Your task to perform on an android device: Open Yahoo.com Image 0: 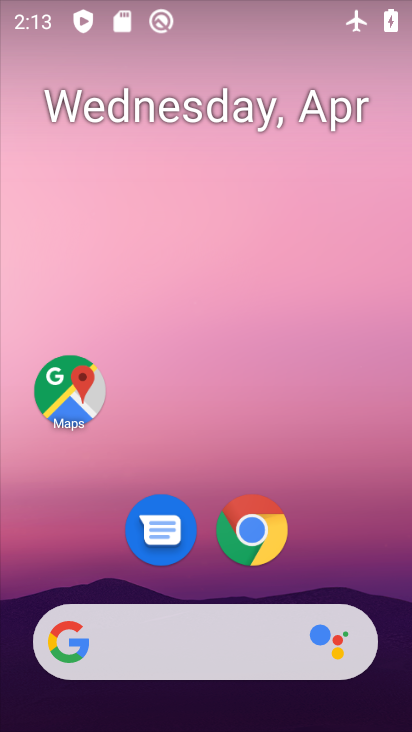
Step 0: click (248, 520)
Your task to perform on an android device: Open Yahoo.com Image 1: 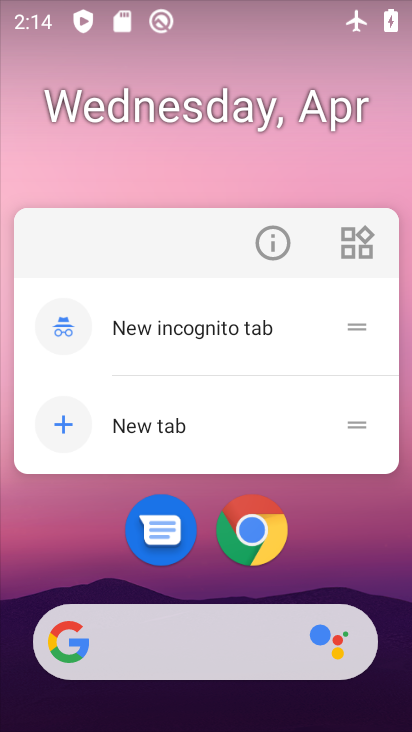
Step 1: drag from (338, 516) to (286, 1)
Your task to perform on an android device: Open Yahoo.com Image 2: 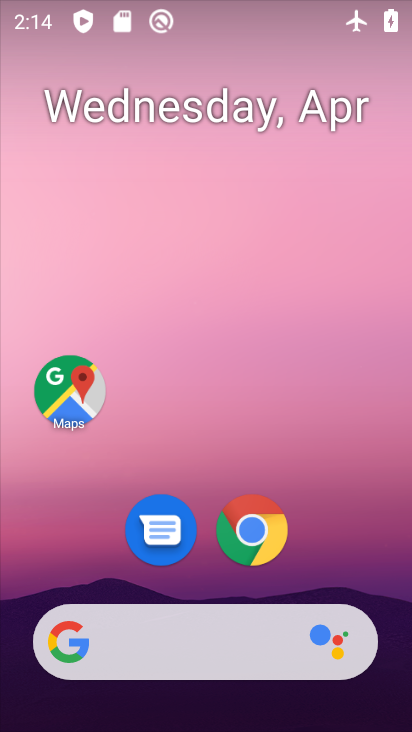
Step 2: drag from (319, 427) to (326, 37)
Your task to perform on an android device: Open Yahoo.com Image 3: 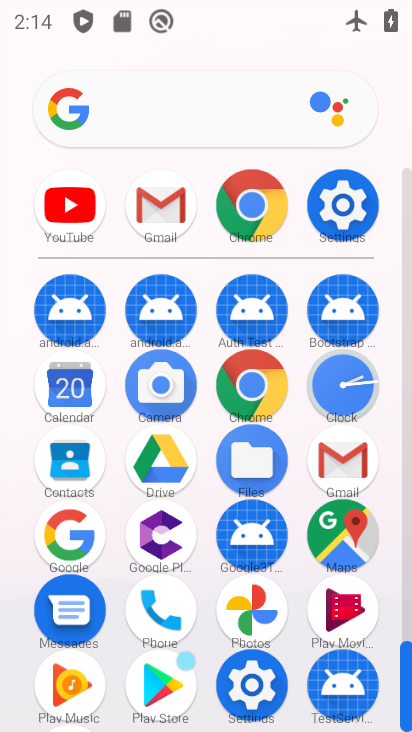
Step 3: click (255, 384)
Your task to perform on an android device: Open Yahoo.com Image 4: 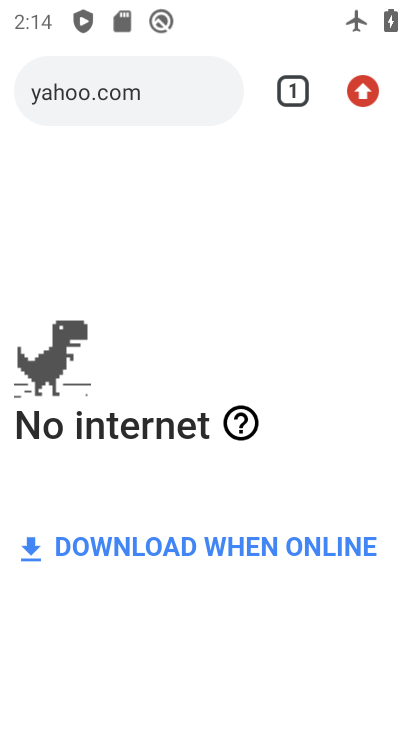
Step 4: task complete